Your task to perform on an android device: set an alarm Image 0: 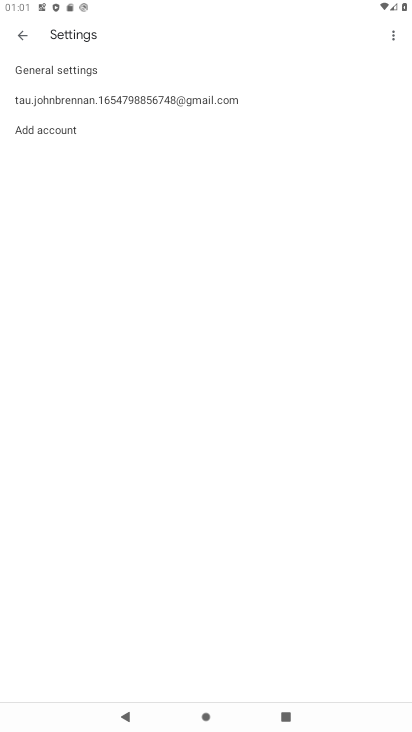
Step 0: press home button
Your task to perform on an android device: set an alarm Image 1: 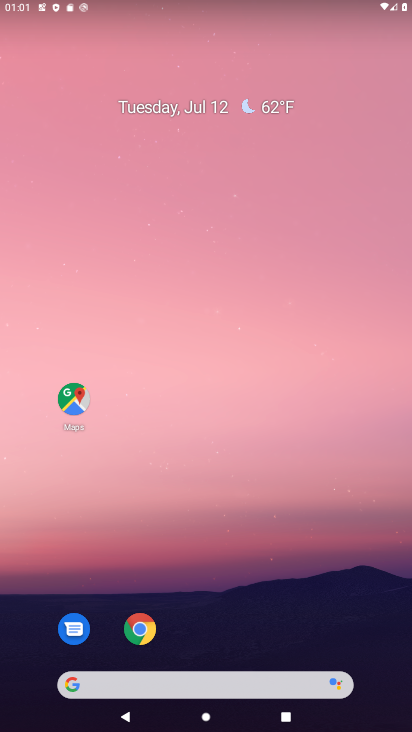
Step 1: drag from (323, 616) to (114, 171)
Your task to perform on an android device: set an alarm Image 2: 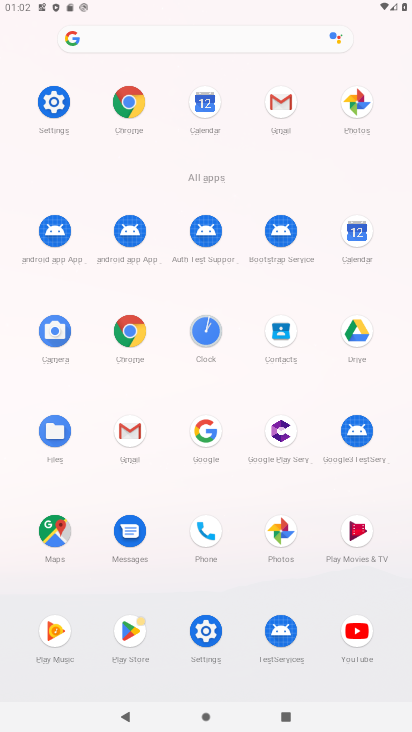
Step 2: click (214, 331)
Your task to perform on an android device: set an alarm Image 3: 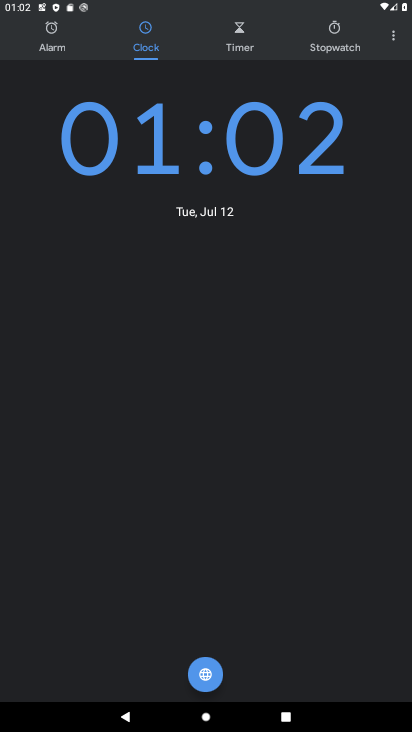
Step 3: click (79, 36)
Your task to perform on an android device: set an alarm Image 4: 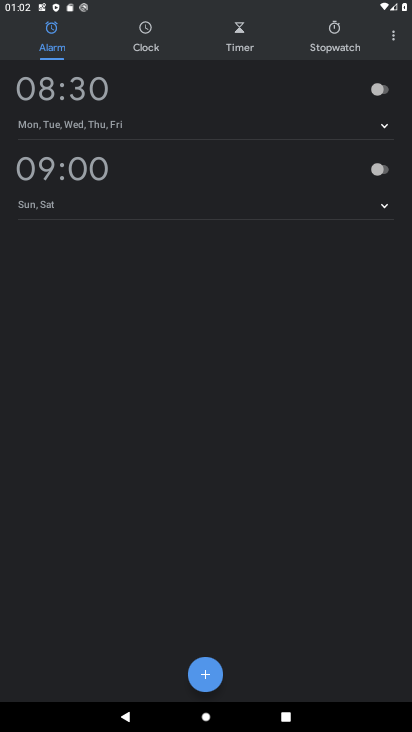
Step 4: click (203, 665)
Your task to perform on an android device: set an alarm Image 5: 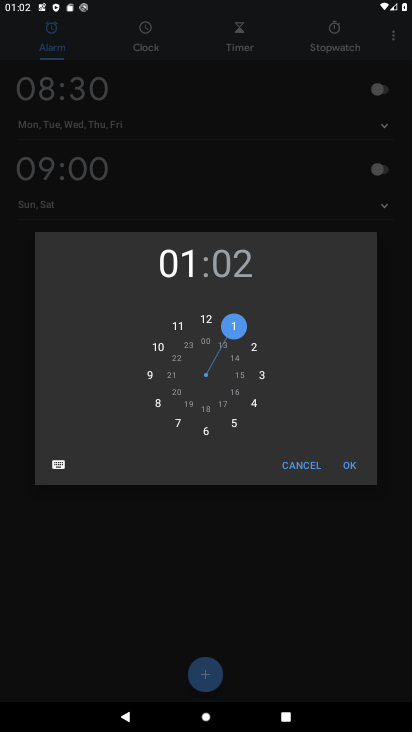
Step 5: click (237, 423)
Your task to perform on an android device: set an alarm Image 6: 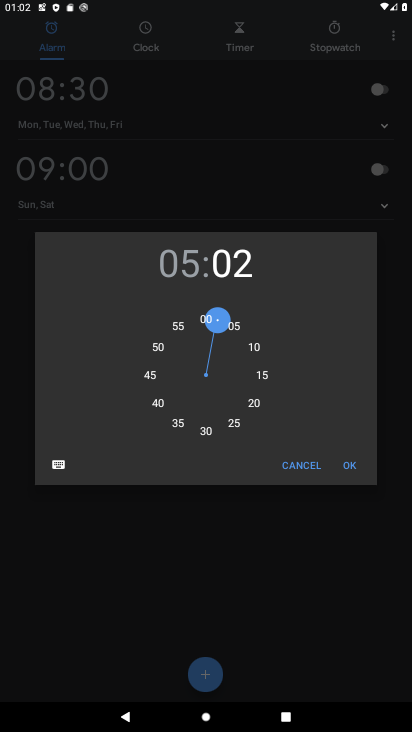
Step 6: click (153, 408)
Your task to perform on an android device: set an alarm Image 7: 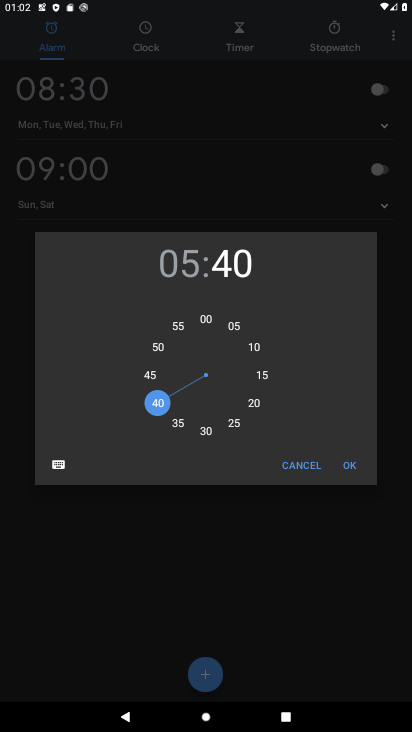
Step 7: click (351, 480)
Your task to perform on an android device: set an alarm Image 8: 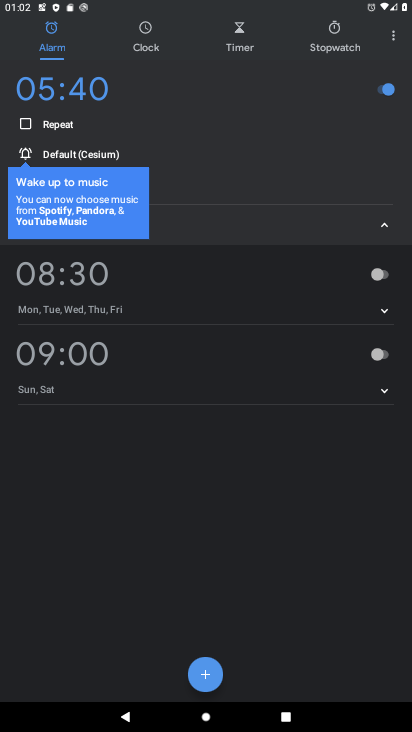
Step 8: task complete